Your task to perform on an android device: turn on improve location accuracy Image 0: 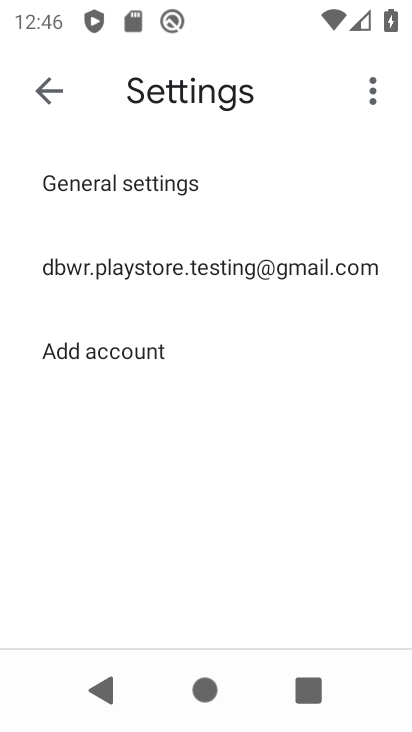
Step 0: press home button
Your task to perform on an android device: turn on improve location accuracy Image 1: 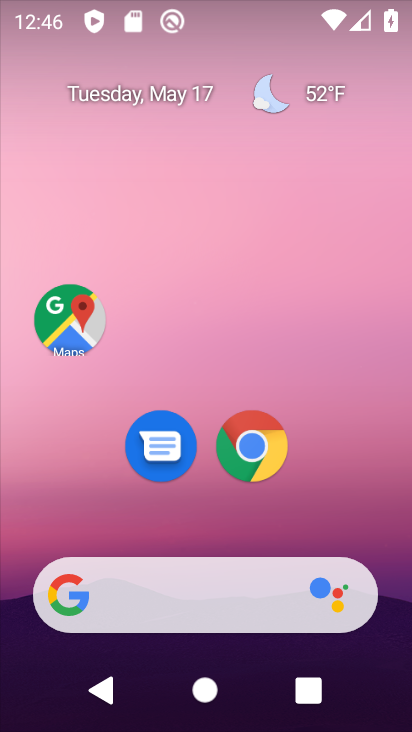
Step 1: drag from (385, 516) to (347, 180)
Your task to perform on an android device: turn on improve location accuracy Image 2: 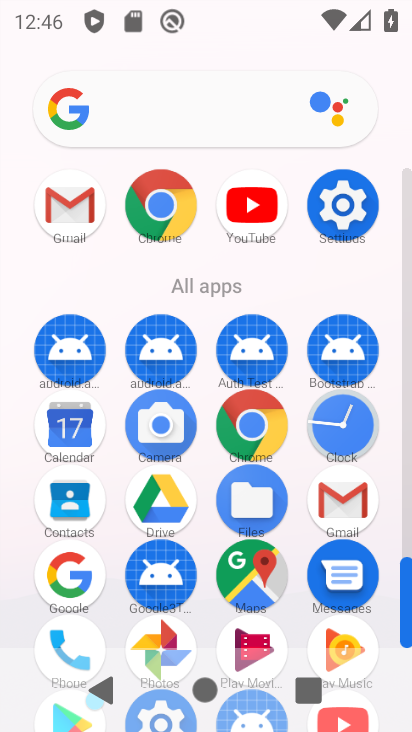
Step 2: click (343, 217)
Your task to perform on an android device: turn on improve location accuracy Image 3: 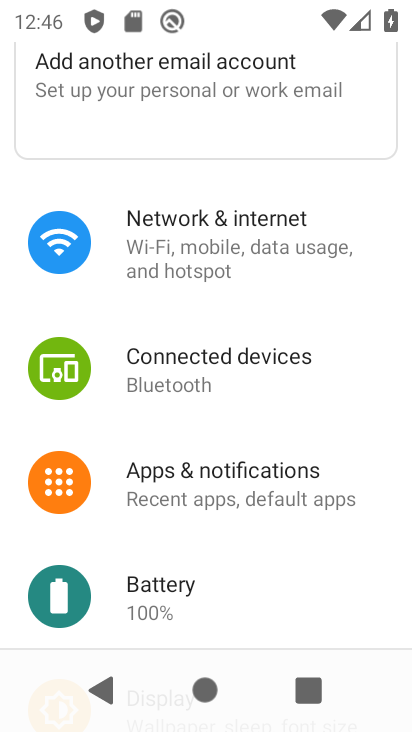
Step 3: drag from (248, 548) to (230, 327)
Your task to perform on an android device: turn on improve location accuracy Image 4: 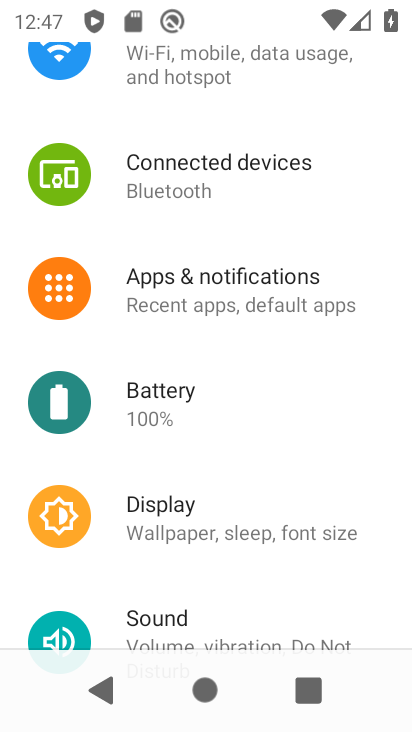
Step 4: drag from (307, 598) to (241, 266)
Your task to perform on an android device: turn on improve location accuracy Image 5: 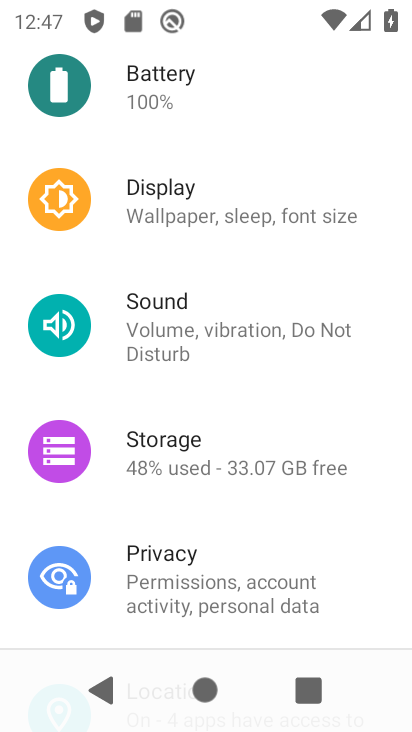
Step 5: drag from (294, 556) to (264, 265)
Your task to perform on an android device: turn on improve location accuracy Image 6: 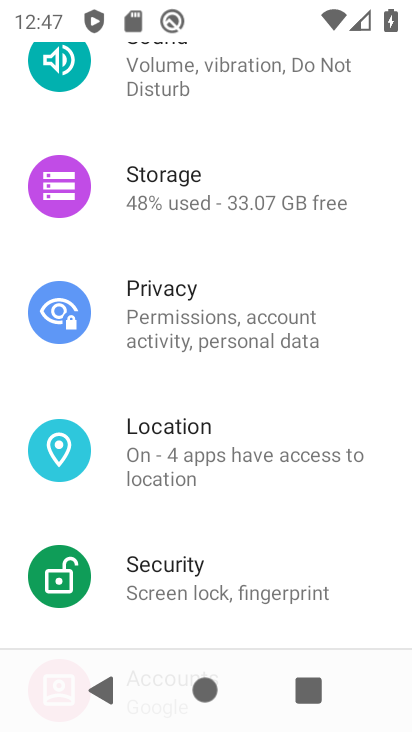
Step 6: click (235, 446)
Your task to perform on an android device: turn on improve location accuracy Image 7: 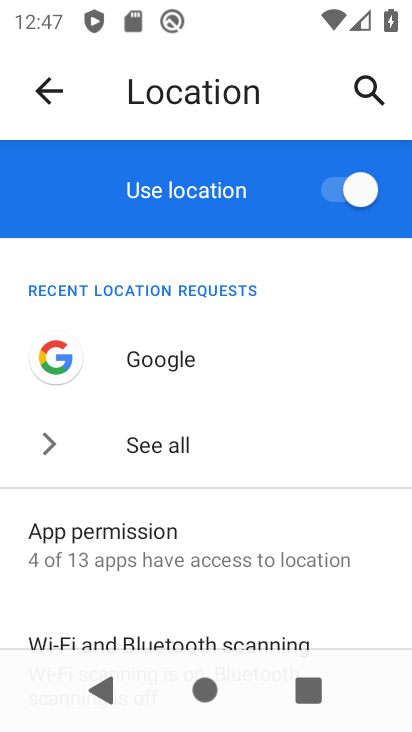
Step 7: drag from (233, 592) to (219, 385)
Your task to perform on an android device: turn on improve location accuracy Image 8: 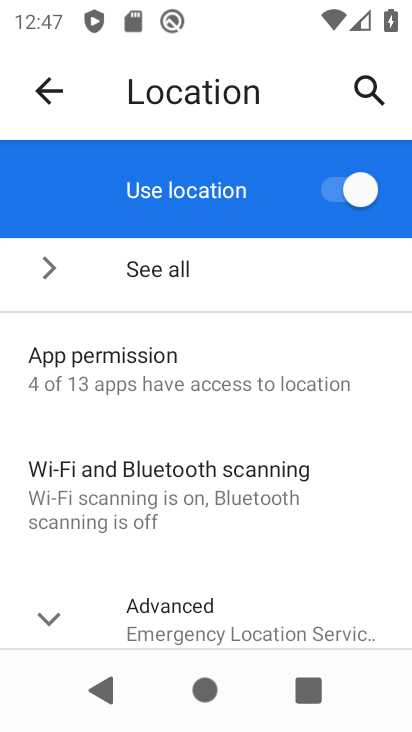
Step 8: click (188, 619)
Your task to perform on an android device: turn on improve location accuracy Image 9: 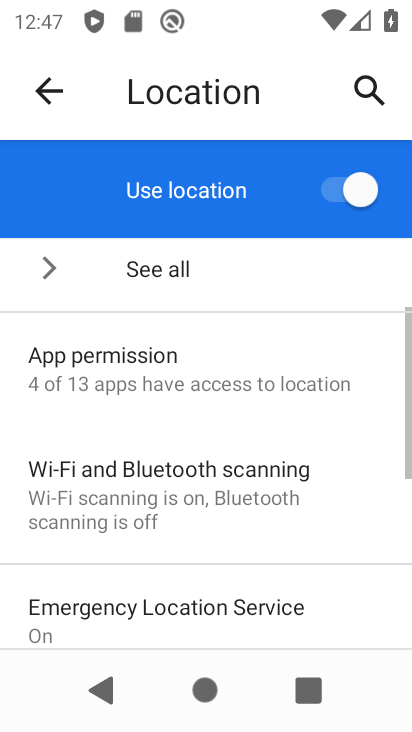
Step 9: drag from (215, 590) to (179, 262)
Your task to perform on an android device: turn on improve location accuracy Image 10: 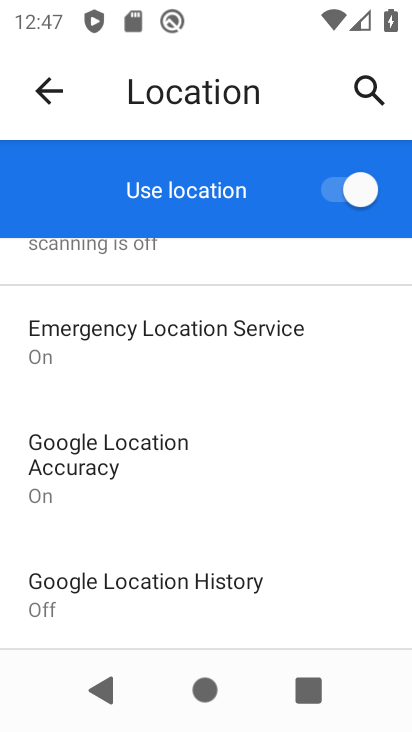
Step 10: click (184, 459)
Your task to perform on an android device: turn on improve location accuracy Image 11: 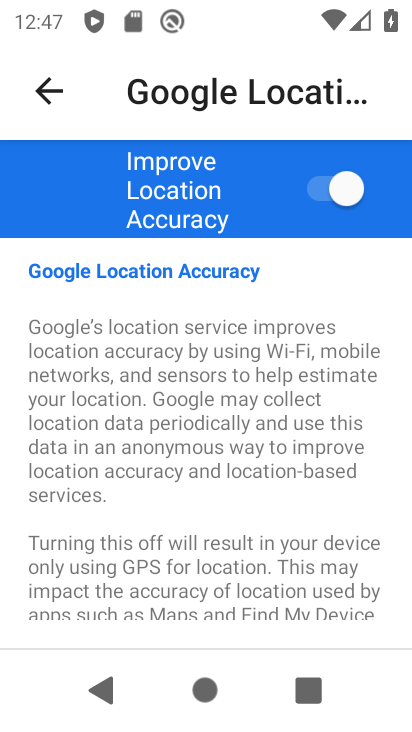
Step 11: task complete